Your task to perform on an android device: change alarm snooze length Image 0: 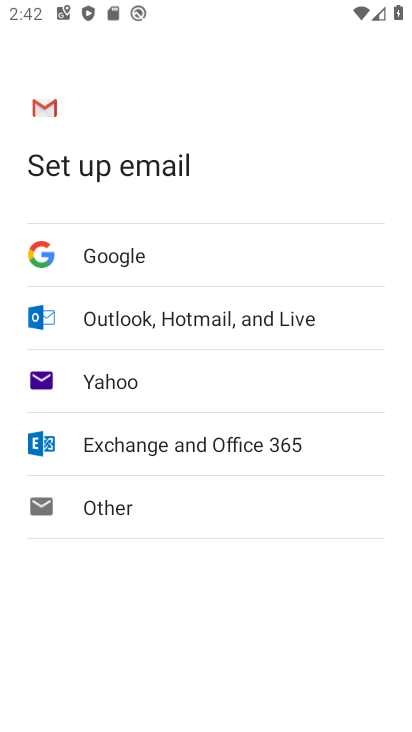
Step 0: press back button
Your task to perform on an android device: change alarm snooze length Image 1: 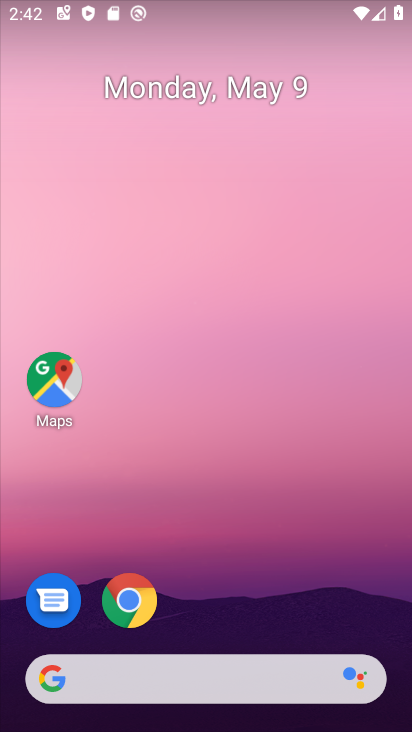
Step 1: drag from (225, 566) to (333, 89)
Your task to perform on an android device: change alarm snooze length Image 2: 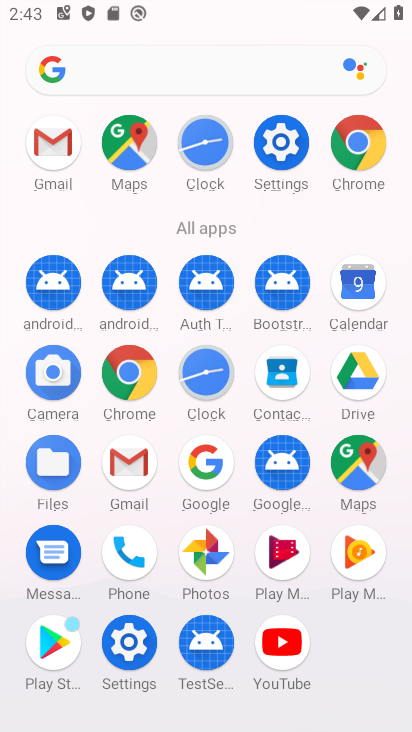
Step 2: click (201, 142)
Your task to perform on an android device: change alarm snooze length Image 3: 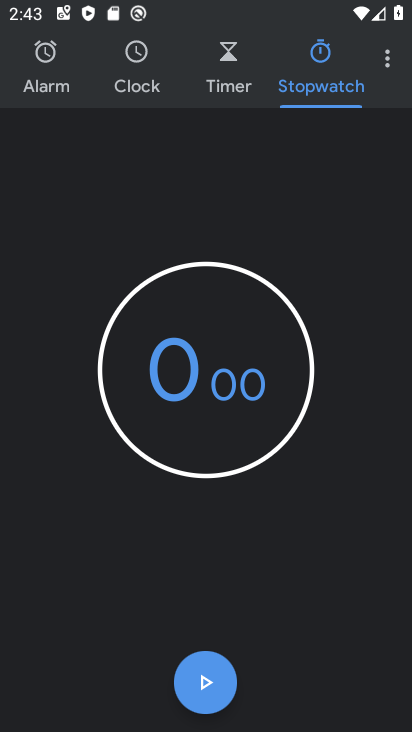
Step 3: click (392, 49)
Your task to perform on an android device: change alarm snooze length Image 4: 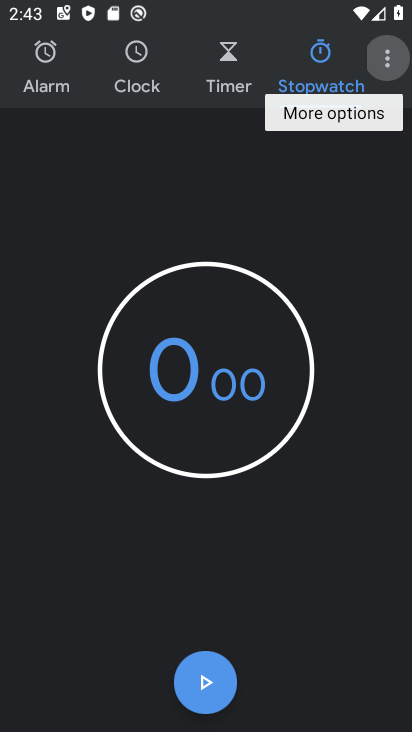
Step 4: click (391, 52)
Your task to perform on an android device: change alarm snooze length Image 5: 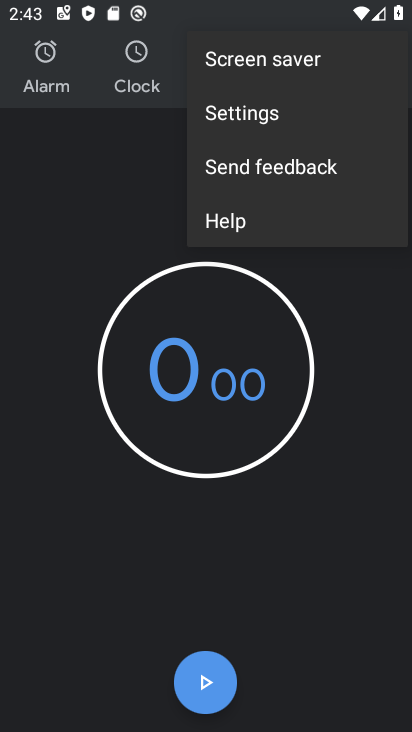
Step 5: click (261, 116)
Your task to perform on an android device: change alarm snooze length Image 6: 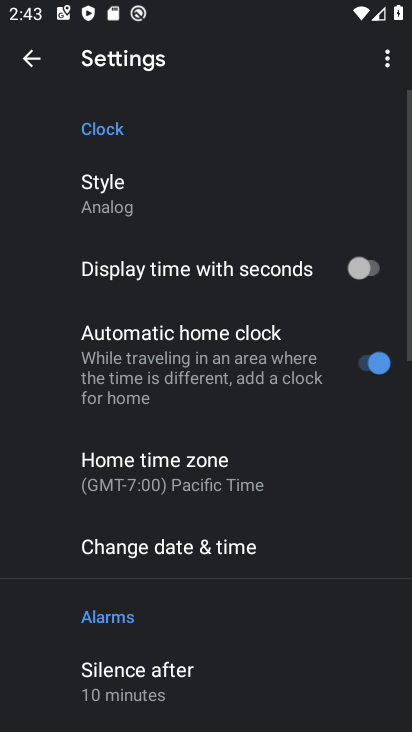
Step 6: drag from (166, 639) to (303, 35)
Your task to perform on an android device: change alarm snooze length Image 7: 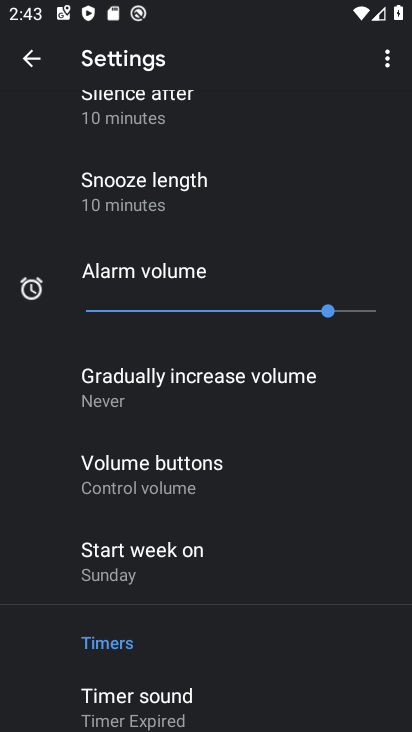
Step 7: drag from (157, 696) to (228, 422)
Your task to perform on an android device: change alarm snooze length Image 8: 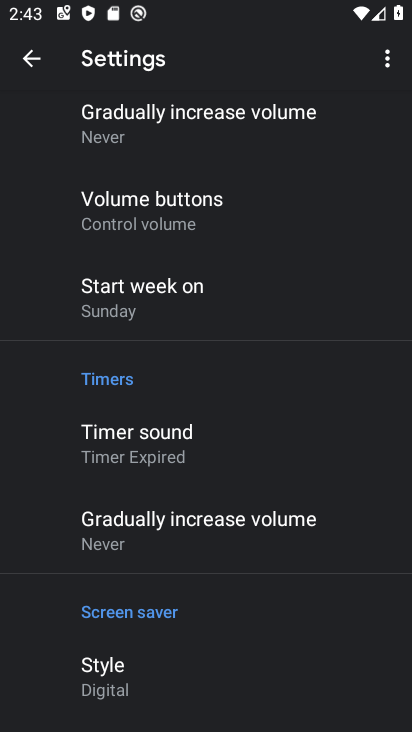
Step 8: drag from (237, 242) to (201, 495)
Your task to perform on an android device: change alarm snooze length Image 9: 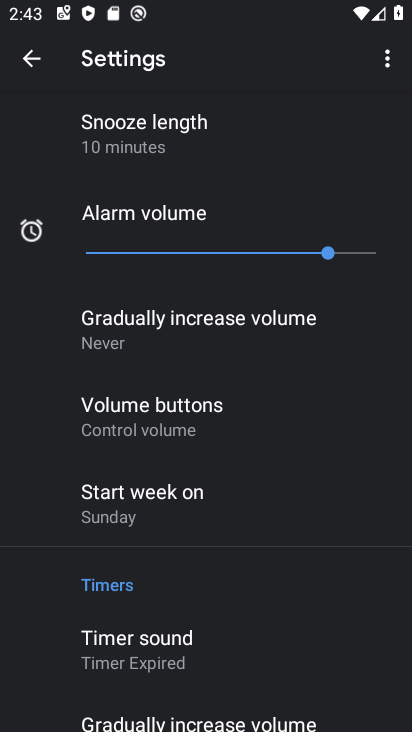
Step 9: click (119, 145)
Your task to perform on an android device: change alarm snooze length Image 10: 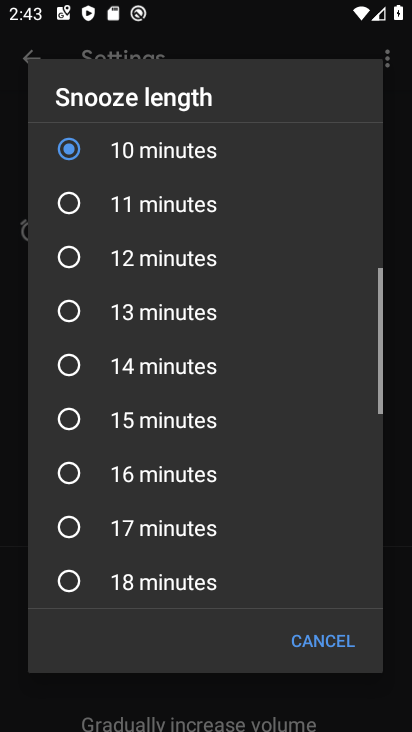
Step 10: click (104, 199)
Your task to perform on an android device: change alarm snooze length Image 11: 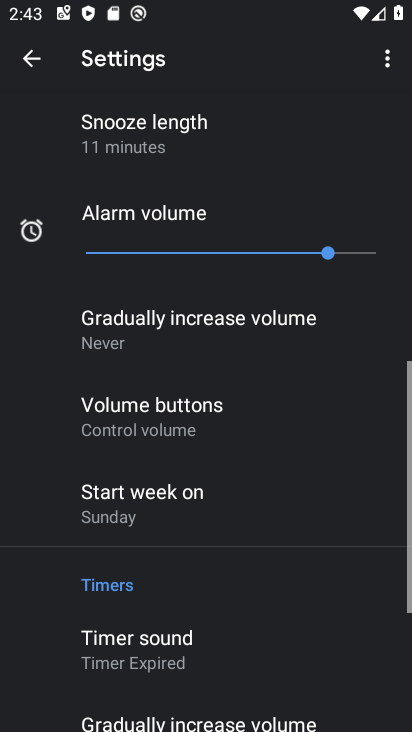
Step 11: task complete